Your task to perform on an android device: Open Wikipedia Image 0: 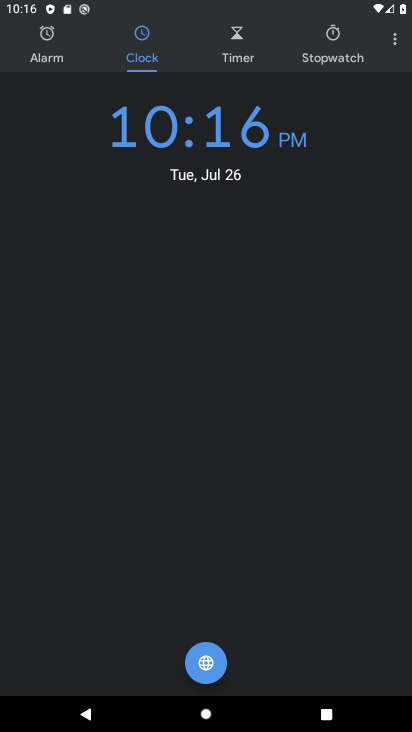
Step 0: press home button
Your task to perform on an android device: Open Wikipedia Image 1: 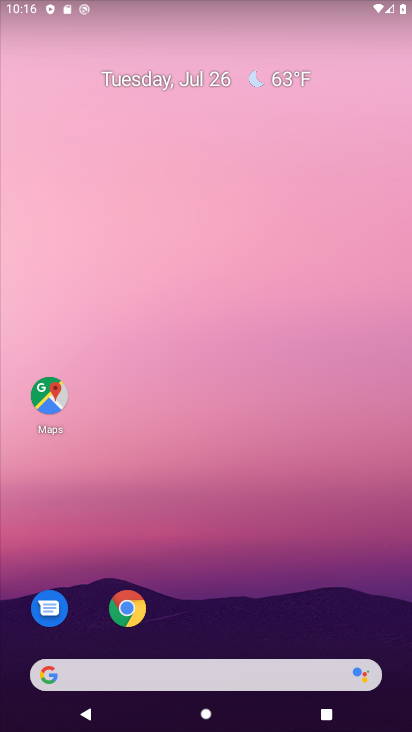
Step 1: click (42, 677)
Your task to perform on an android device: Open Wikipedia Image 2: 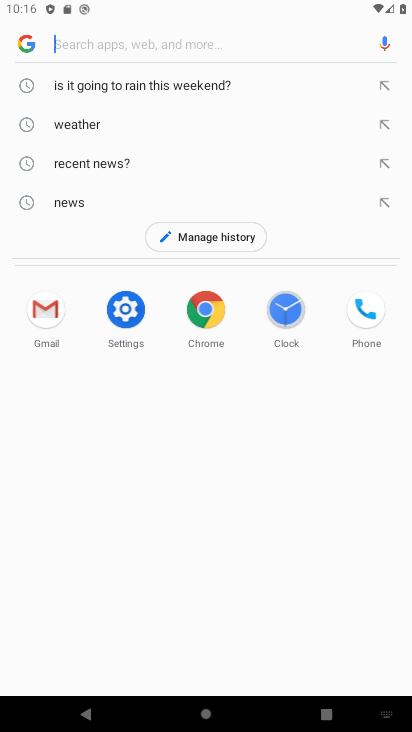
Step 2: type " Wikipedia"
Your task to perform on an android device: Open Wikipedia Image 3: 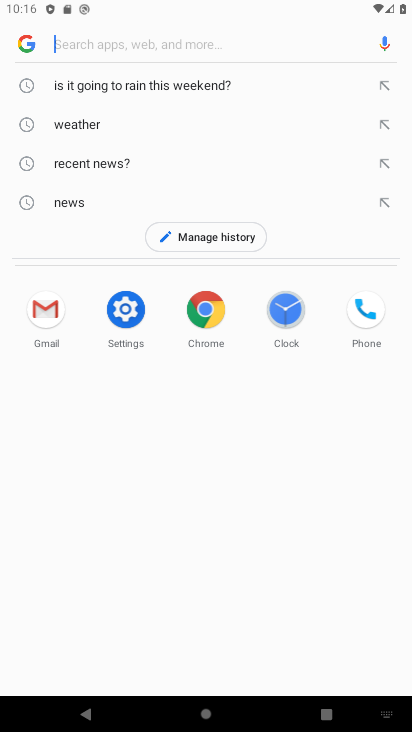
Step 3: click (77, 46)
Your task to perform on an android device: Open Wikipedia Image 4: 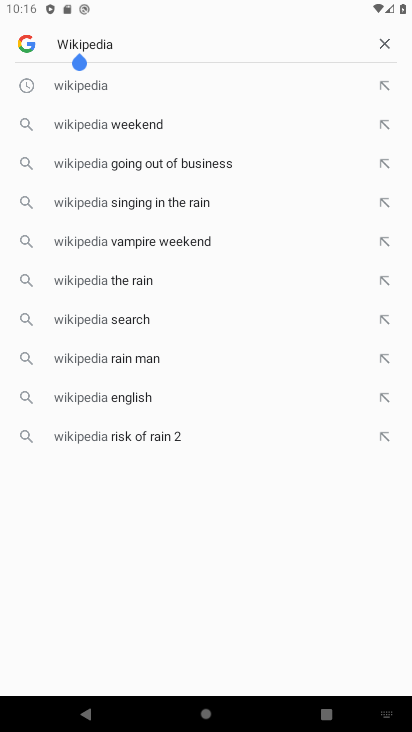
Step 4: press enter
Your task to perform on an android device: Open Wikipedia Image 5: 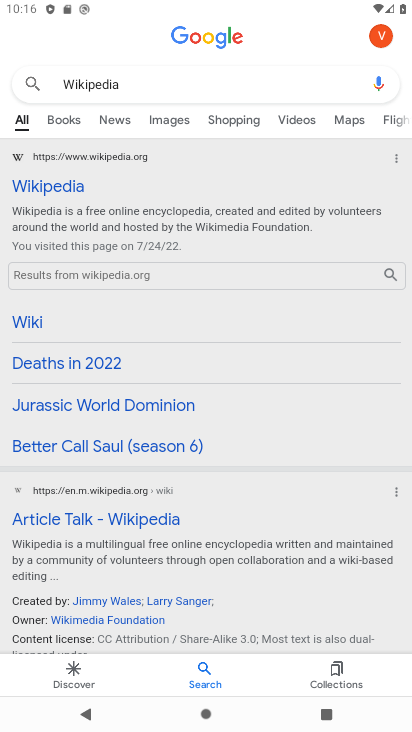
Step 5: click (69, 190)
Your task to perform on an android device: Open Wikipedia Image 6: 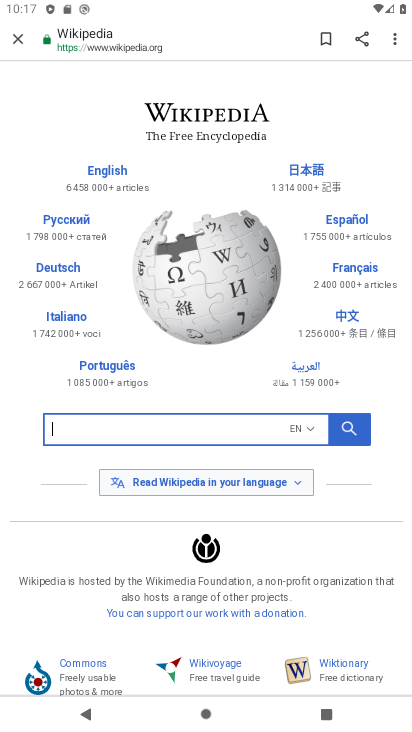
Step 6: task complete